Your task to perform on an android device: toggle notifications settings in the gmail app Image 0: 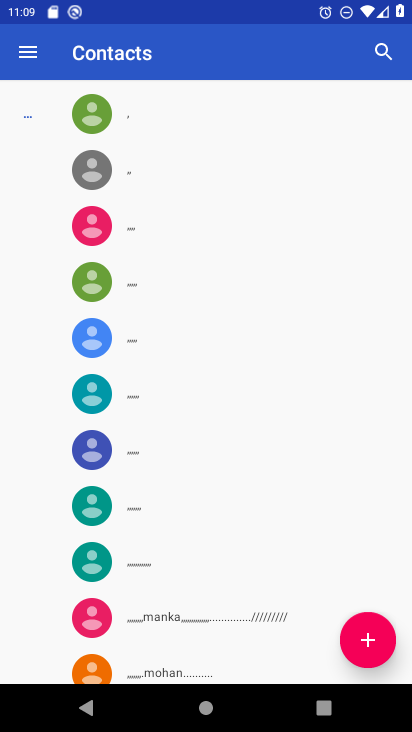
Step 0: press home button
Your task to perform on an android device: toggle notifications settings in the gmail app Image 1: 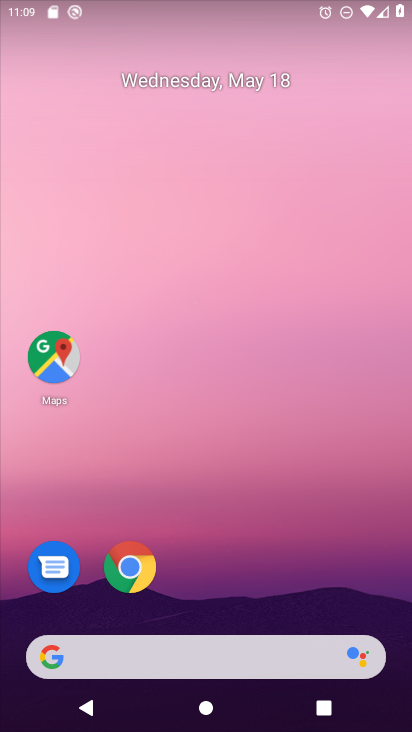
Step 1: drag from (265, 632) to (257, 240)
Your task to perform on an android device: toggle notifications settings in the gmail app Image 2: 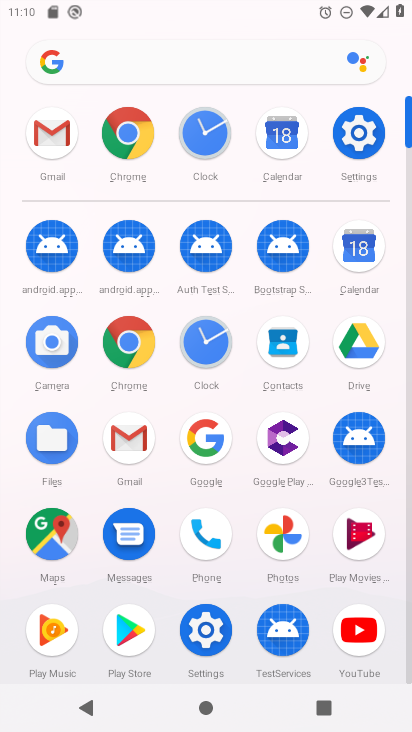
Step 2: click (146, 425)
Your task to perform on an android device: toggle notifications settings in the gmail app Image 3: 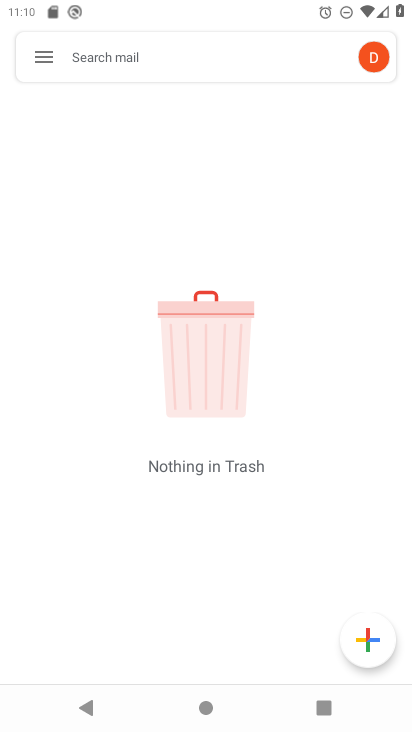
Step 3: click (60, 65)
Your task to perform on an android device: toggle notifications settings in the gmail app Image 4: 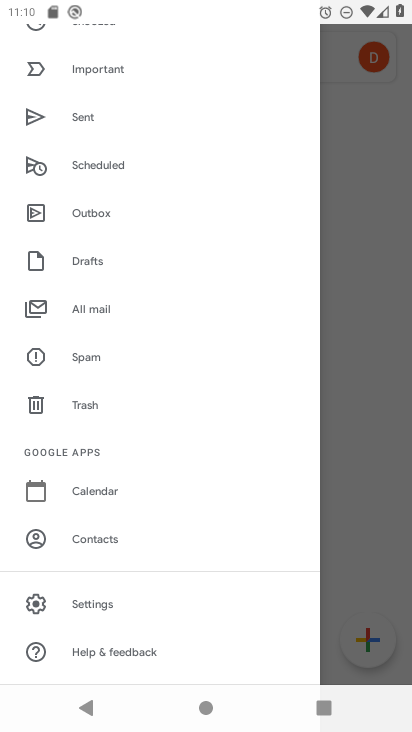
Step 4: click (112, 595)
Your task to perform on an android device: toggle notifications settings in the gmail app Image 5: 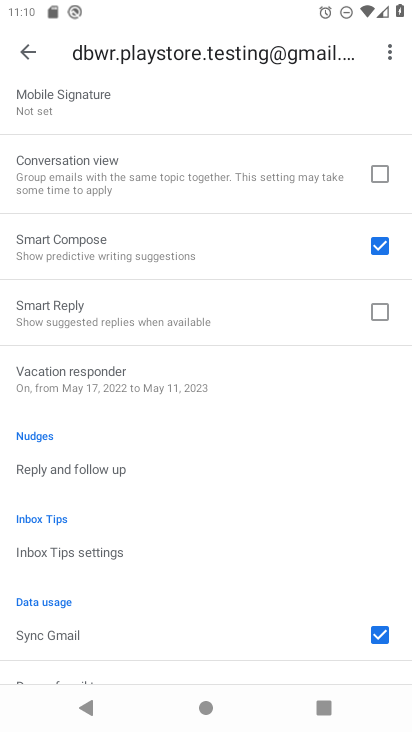
Step 5: drag from (132, 240) to (189, 606)
Your task to perform on an android device: toggle notifications settings in the gmail app Image 6: 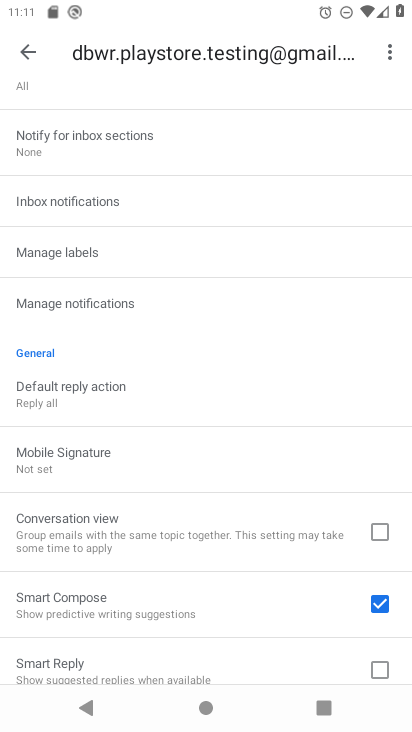
Step 6: drag from (128, 161) to (107, 297)
Your task to perform on an android device: toggle notifications settings in the gmail app Image 7: 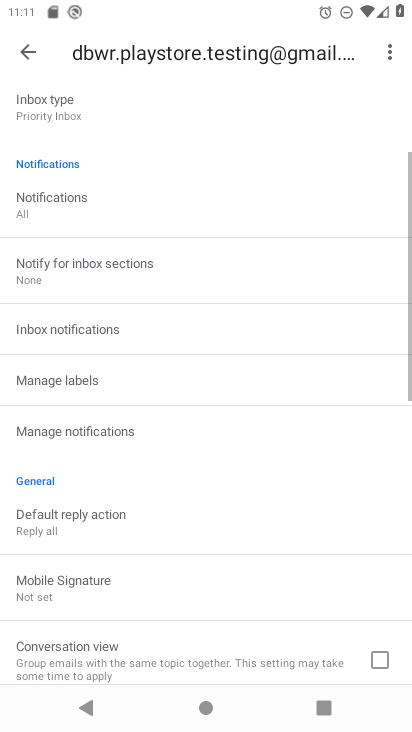
Step 7: click (90, 220)
Your task to perform on an android device: toggle notifications settings in the gmail app Image 8: 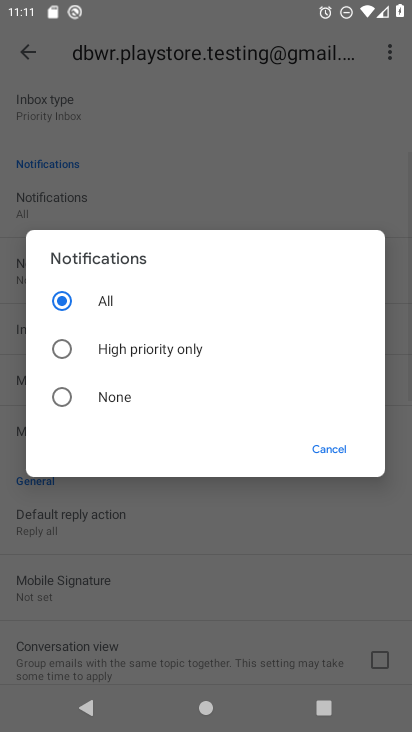
Step 8: task complete